Your task to perform on an android device: Go to Android settings Image 0: 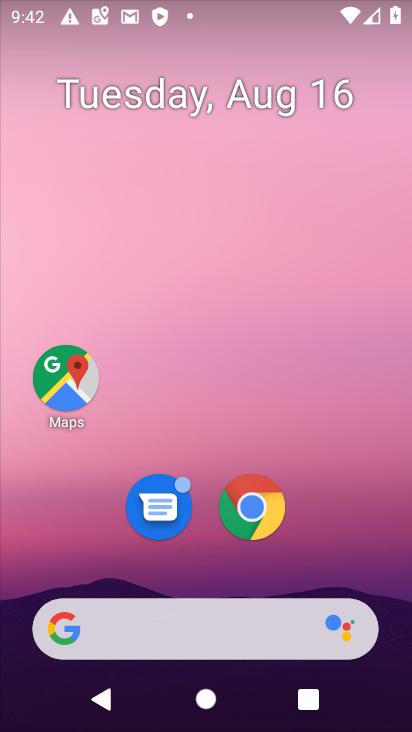
Step 0: drag from (207, 577) to (241, 177)
Your task to perform on an android device: Go to Android settings Image 1: 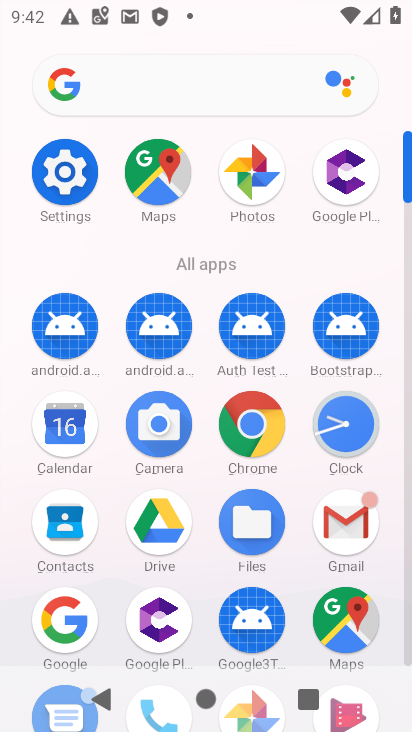
Step 1: click (77, 163)
Your task to perform on an android device: Go to Android settings Image 2: 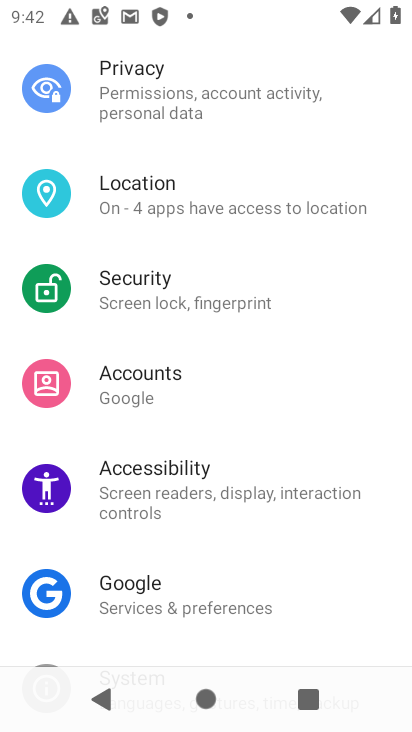
Step 2: drag from (189, 621) to (292, 14)
Your task to perform on an android device: Go to Android settings Image 3: 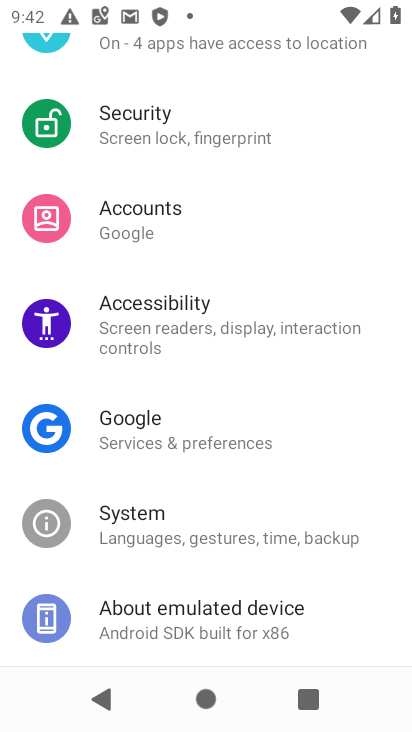
Step 3: click (177, 598)
Your task to perform on an android device: Go to Android settings Image 4: 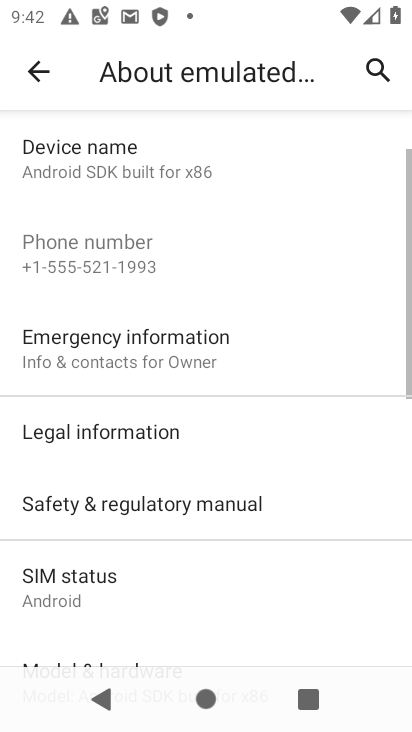
Step 4: task complete